Your task to perform on an android device: see creations saved in the google photos Image 0: 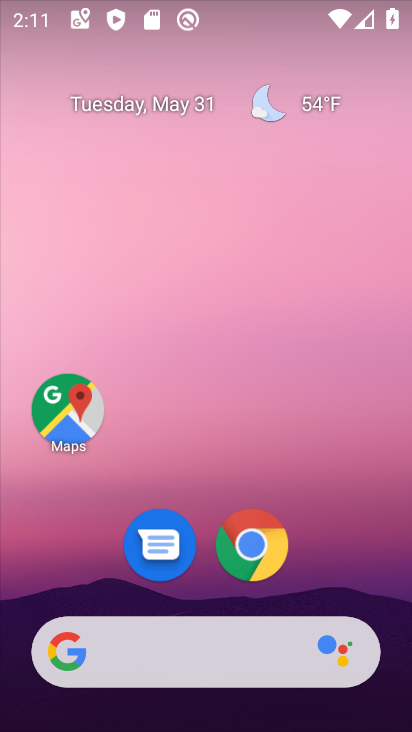
Step 0: drag from (367, 555) to (339, 47)
Your task to perform on an android device: see creations saved in the google photos Image 1: 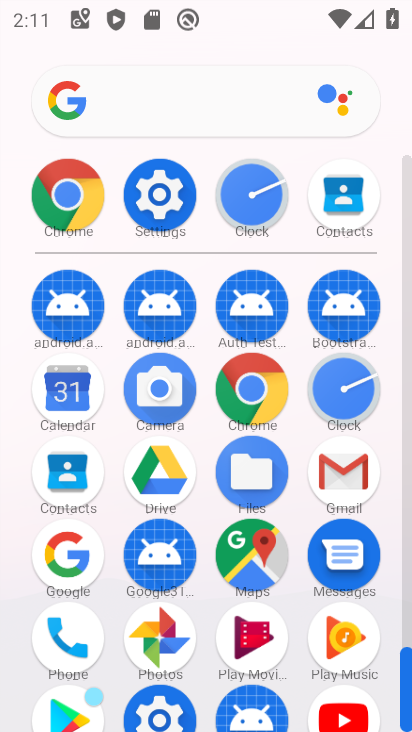
Step 1: click (173, 630)
Your task to perform on an android device: see creations saved in the google photos Image 2: 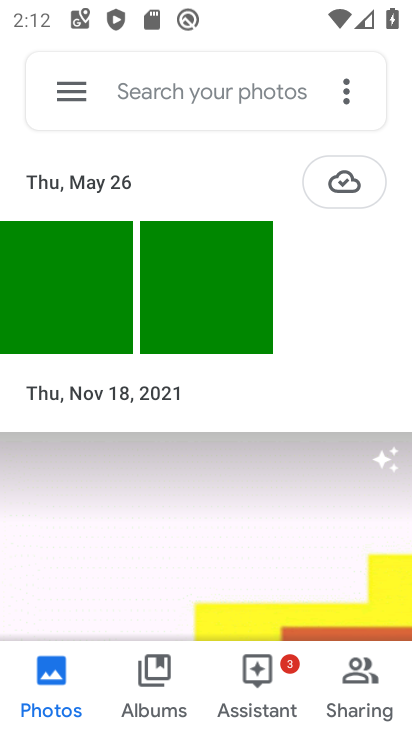
Step 2: click (81, 95)
Your task to perform on an android device: see creations saved in the google photos Image 3: 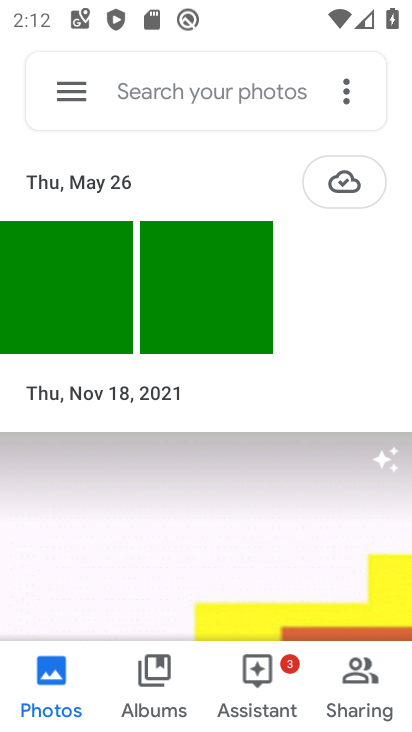
Step 3: click (81, 95)
Your task to perform on an android device: see creations saved in the google photos Image 4: 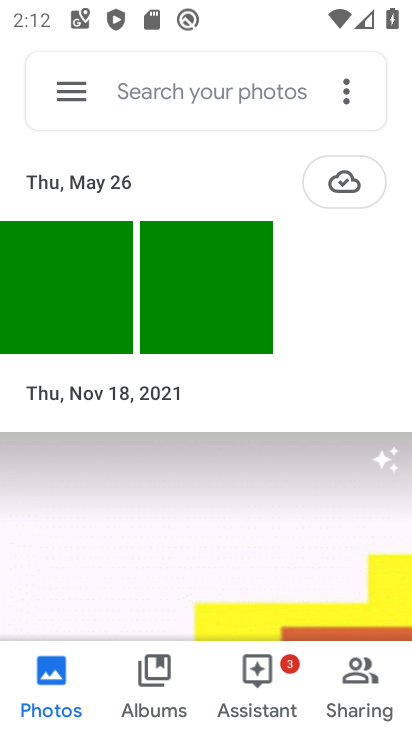
Step 4: click (243, 102)
Your task to perform on an android device: see creations saved in the google photos Image 5: 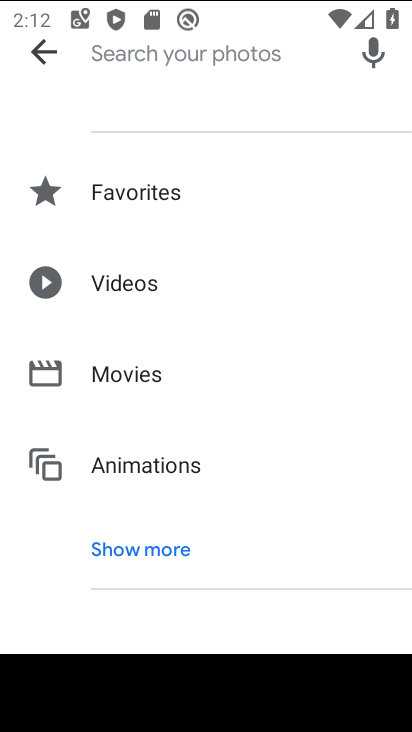
Step 5: click (182, 553)
Your task to perform on an android device: see creations saved in the google photos Image 6: 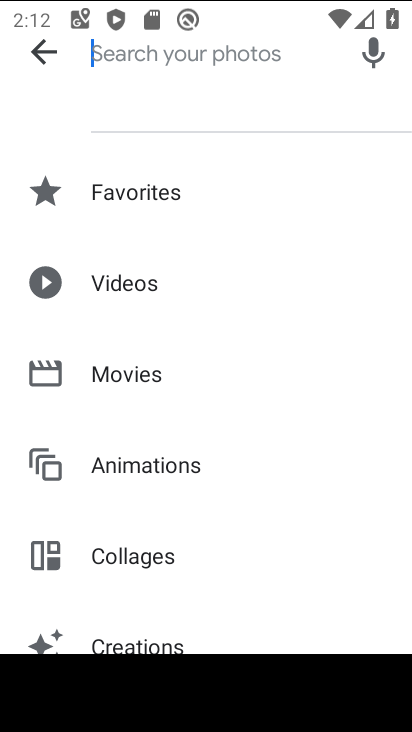
Step 6: click (161, 642)
Your task to perform on an android device: see creations saved in the google photos Image 7: 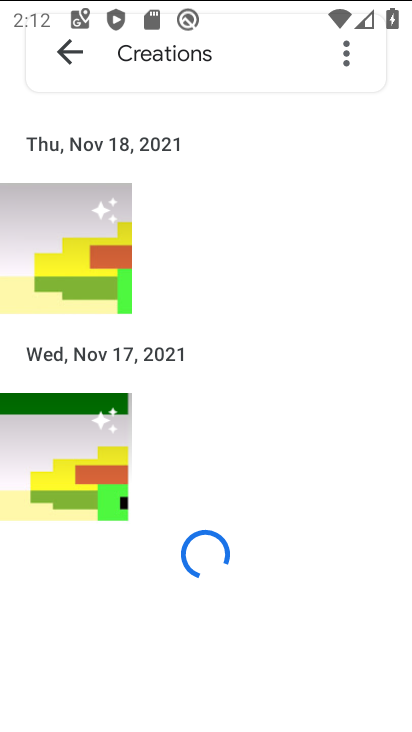
Step 7: task complete